Your task to perform on an android device: all mails in gmail Image 0: 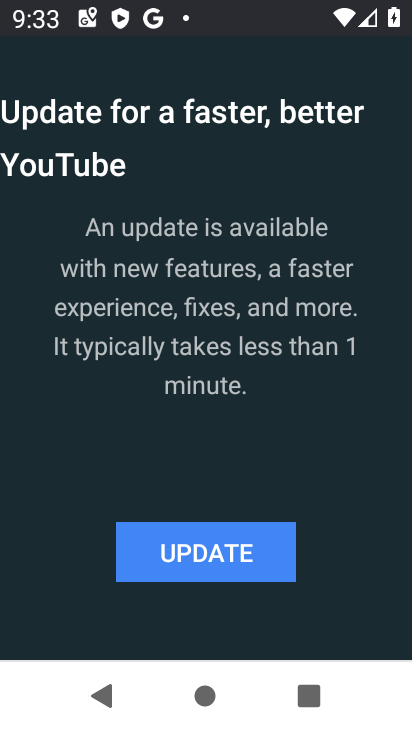
Step 0: press back button
Your task to perform on an android device: all mails in gmail Image 1: 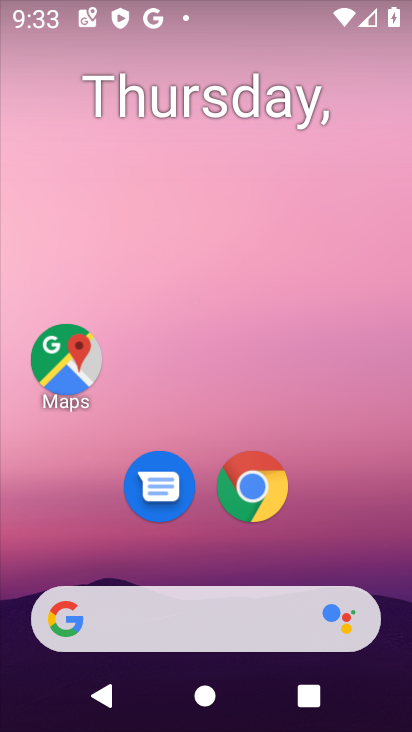
Step 1: drag from (236, 553) to (220, 43)
Your task to perform on an android device: all mails in gmail Image 2: 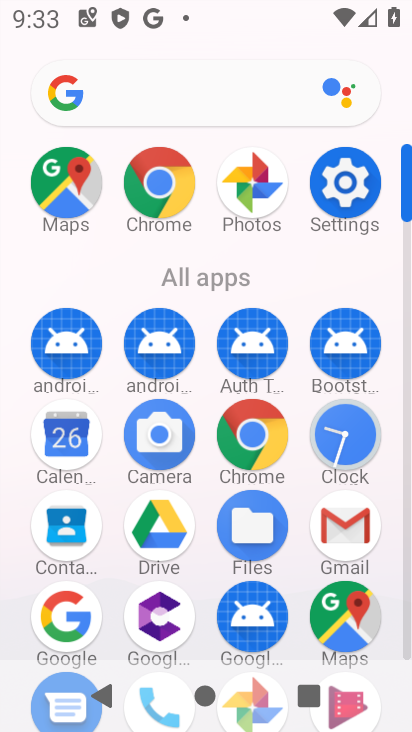
Step 2: click (340, 516)
Your task to perform on an android device: all mails in gmail Image 3: 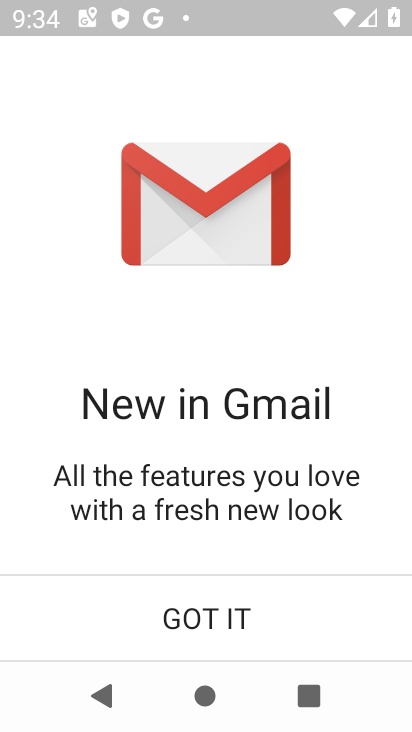
Step 3: click (228, 608)
Your task to perform on an android device: all mails in gmail Image 4: 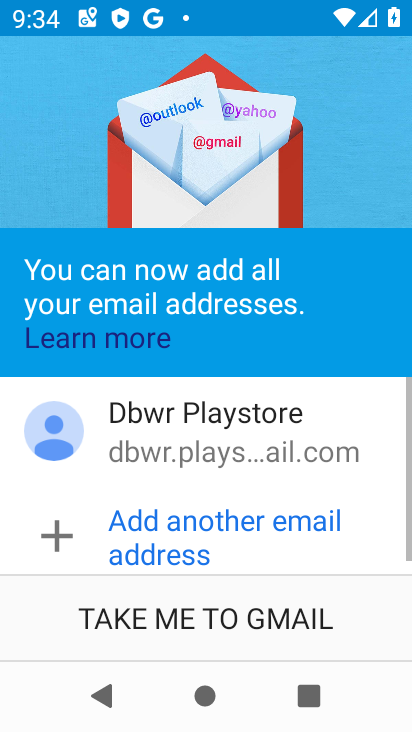
Step 4: click (219, 600)
Your task to perform on an android device: all mails in gmail Image 5: 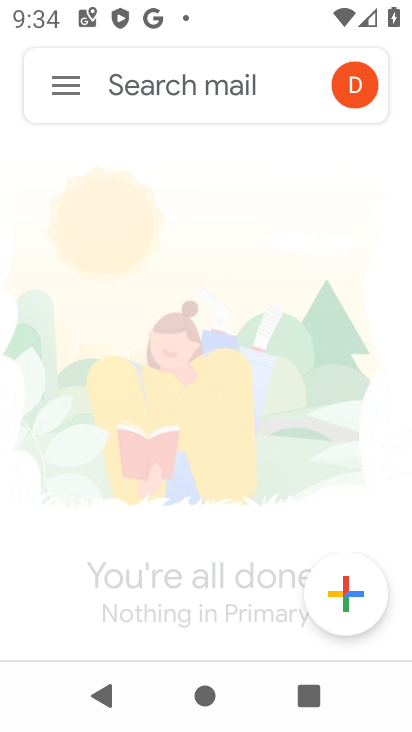
Step 5: click (64, 98)
Your task to perform on an android device: all mails in gmail Image 6: 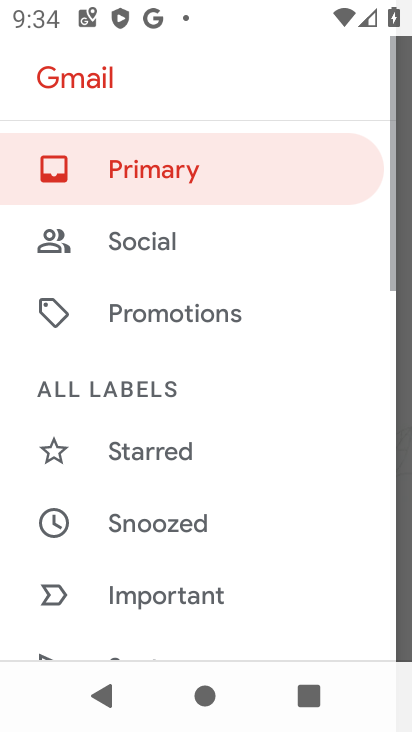
Step 6: drag from (225, 590) to (232, 87)
Your task to perform on an android device: all mails in gmail Image 7: 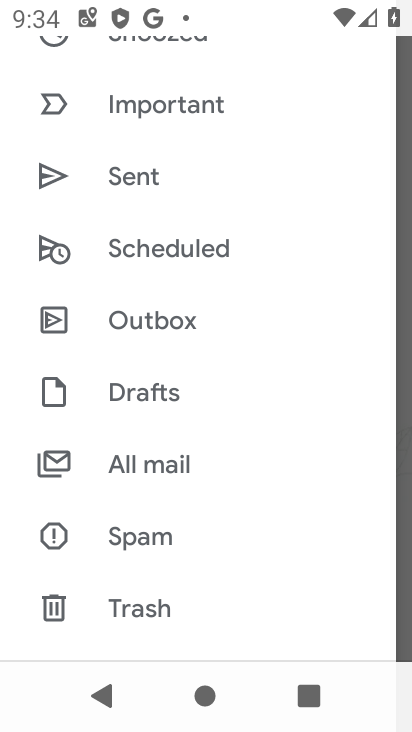
Step 7: click (162, 474)
Your task to perform on an android device: all mails in gmail Image 8: 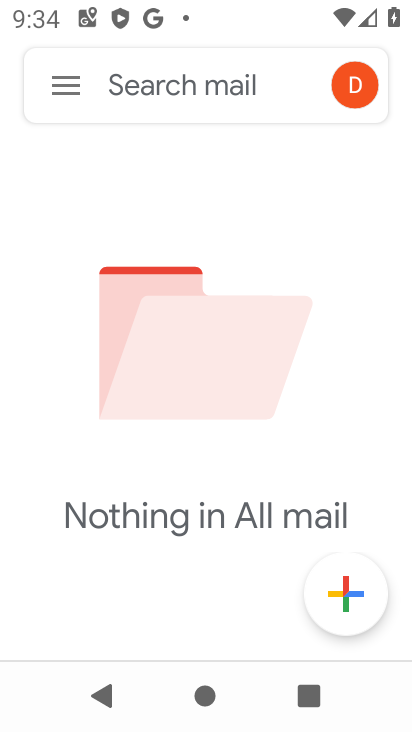
Step 8: task complete